Your task to perform on an android device: turn on location history Image 0: 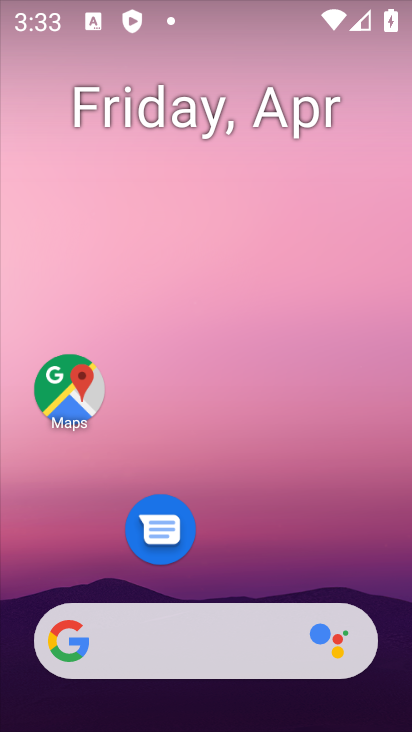
Step 0: drag from (255, 642) to (375, 179)
Your task to perform on an android device: turn on location history Image 1: 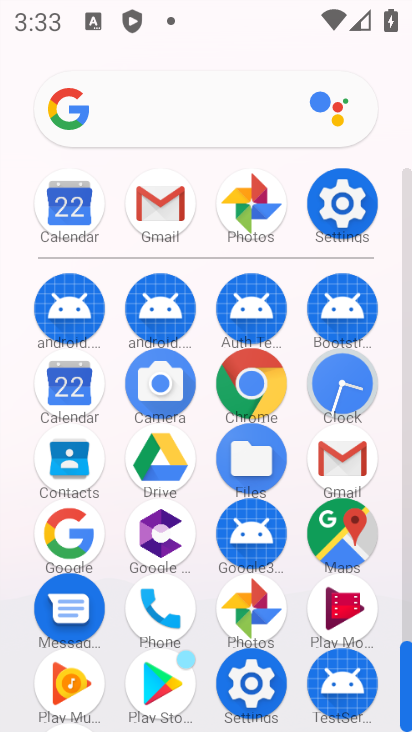
Step 1: click (353, 237)
Your task to perform on an android device: turn on location history Image 2: 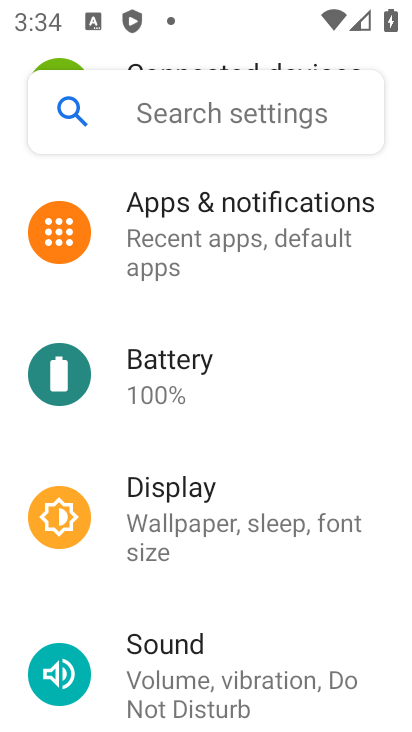
Step 2: drag from (253, 421) to (292, 136)
Your task to perform on an android device: turn on location history Image 3: 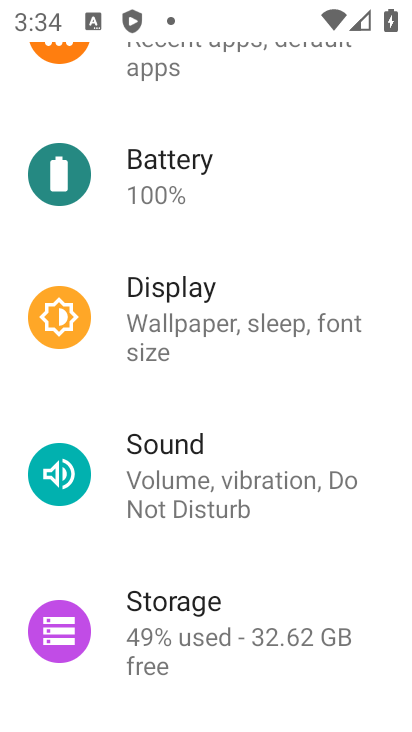
Step 3: drag from (227, 572) to (292, 244)
Your task to perform on an android device: turn on location history Image 4: 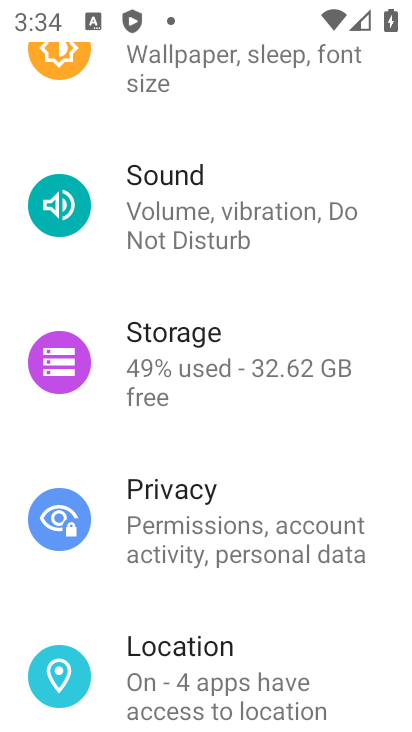
Step 4: click (249, 674)
Your task to perform on an android device: turn on location history Image 5: 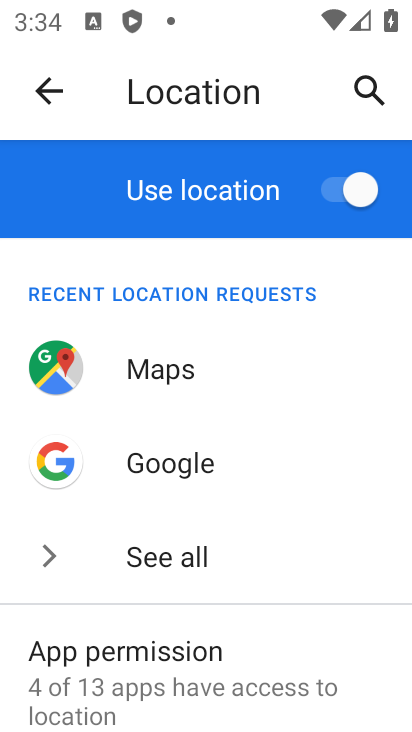
Step 5: drag from (256, 638) to (341, 315)
Your task to perform on an android device: turn on location history Image 6: 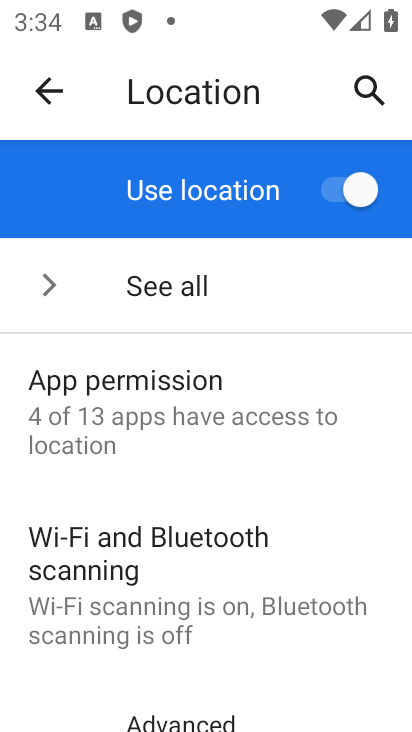
Step 6: drag from (263, 612) to (316, 303)
Your task to perform on an android device: turn on location history Image 7: 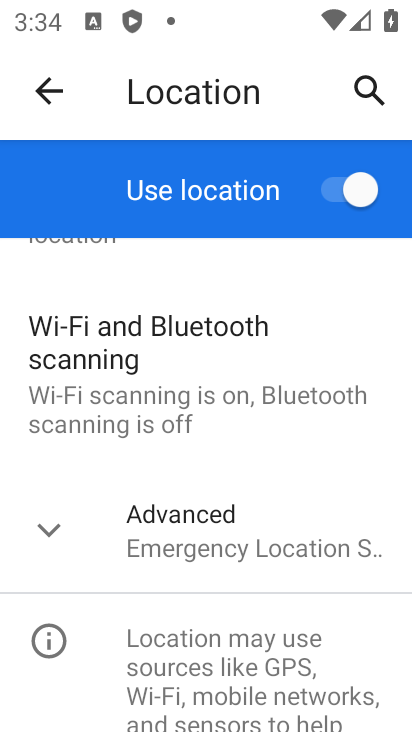
Step 7: click (271, 554)
Your task to perform on an android device: turn on location history Image 8: 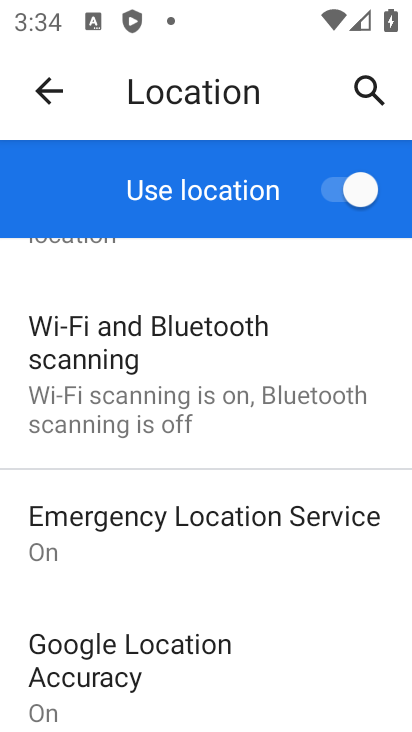
Step 8: drag from (254, 558) to (303, 324)
Your task to perform on an android device: turn on location history Image 9: 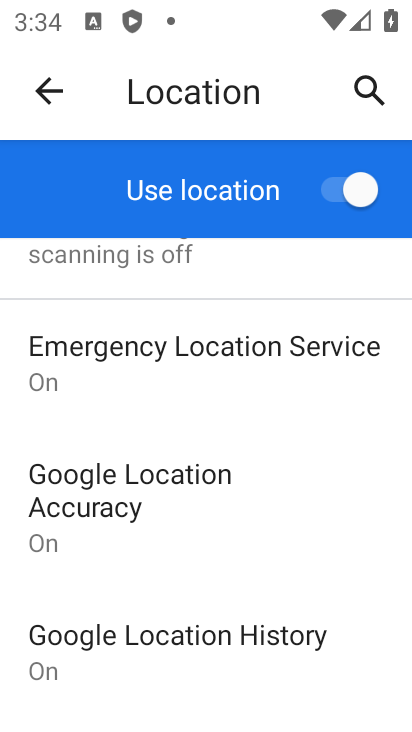
Step 9: drag from (258, 584) to (334, 326)
Your task to perform on an android device: turn on location history Image 10: 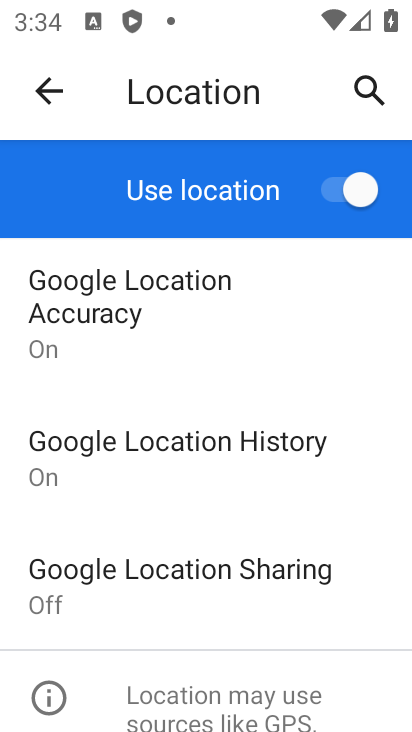
Step 10: click (292, 450)
Your task to perform on an android device: turn on location history Image 11: 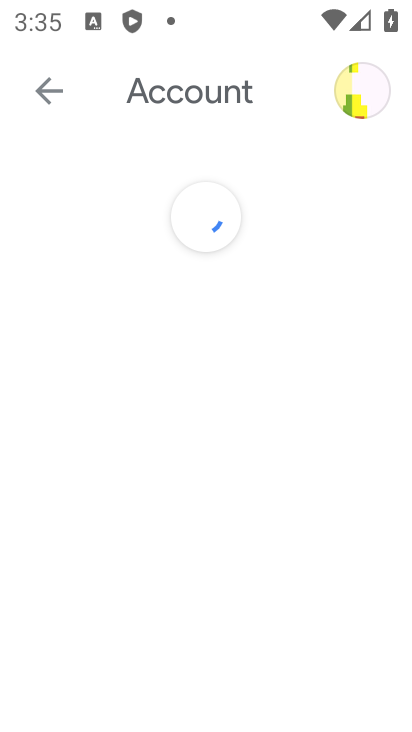
Step 11: task complete